Your task to perform on an android device: Go to network settings Image 0: 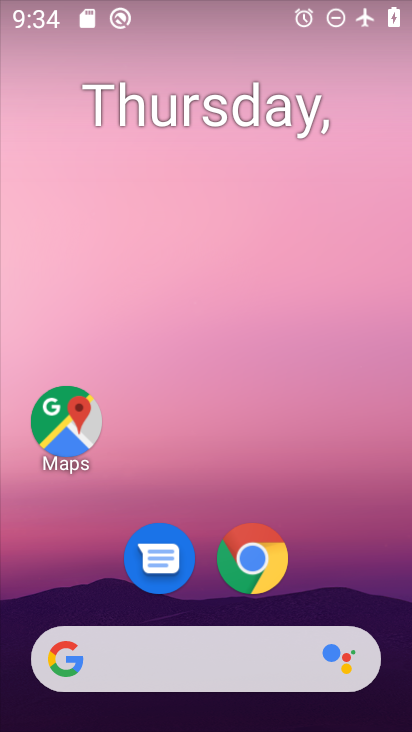
Step 0: drag from (400, 660) to (280, 68)
Your task to perform on an android device: Go to network settings Image 1: 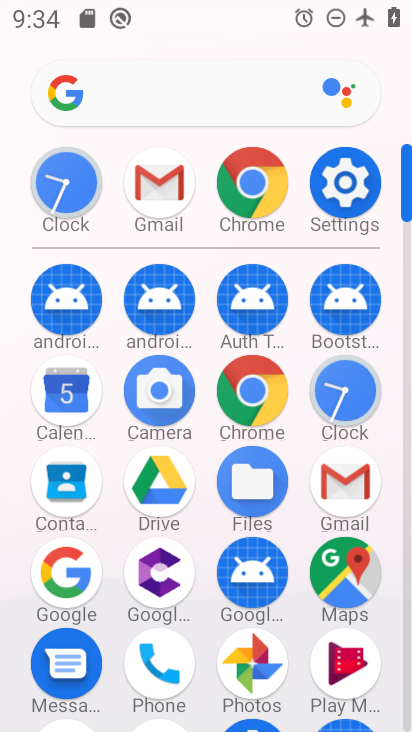
Step 1: click (408, 712)
Your task to perform on an android device: Go to network settings Image 2: 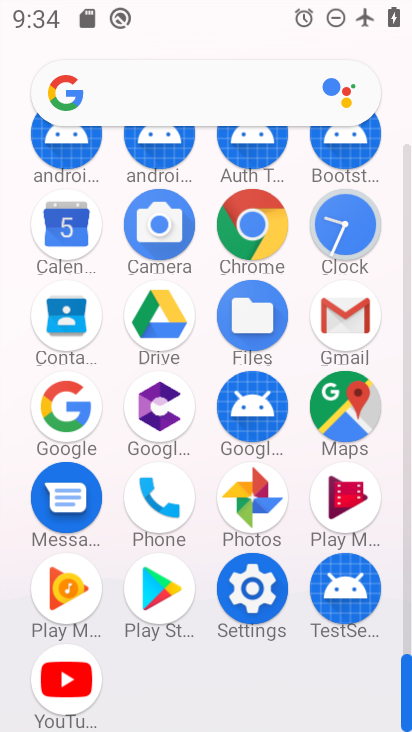
Step 2: click (252, 586)
Your task to perform on an android device: Go to network settings Image 3: 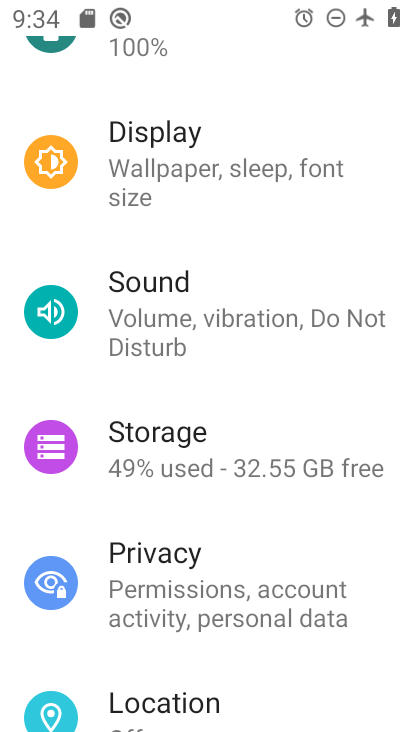
Step 3: drag from (368, 228) to (352, 469)
Your task to perform on an android device: Go to network settings Image 4: 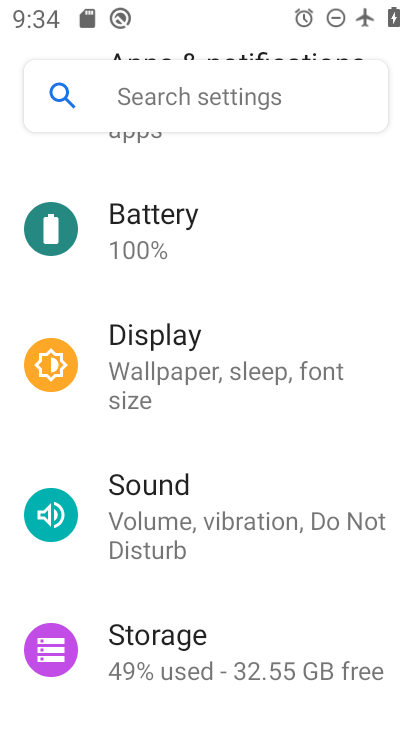
Step 4: drag from (338, 237) to (320, 549)
Your task to perform on an android device: Go to network settings Image 5: 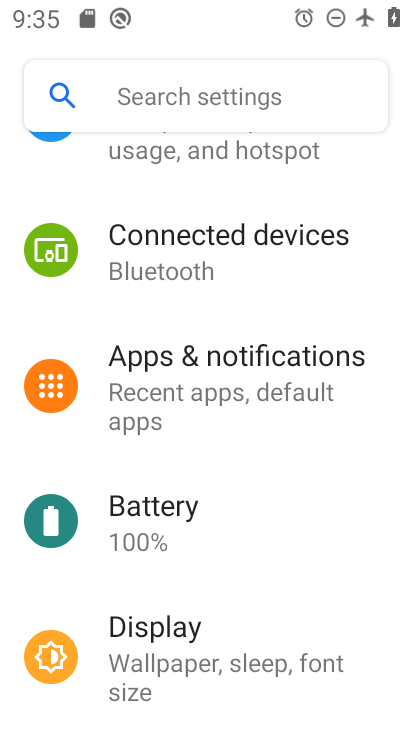
Step 5: drag from (244, 225) to (245, 614)
Your task to perform on an android device: Go to network settings Image 6: 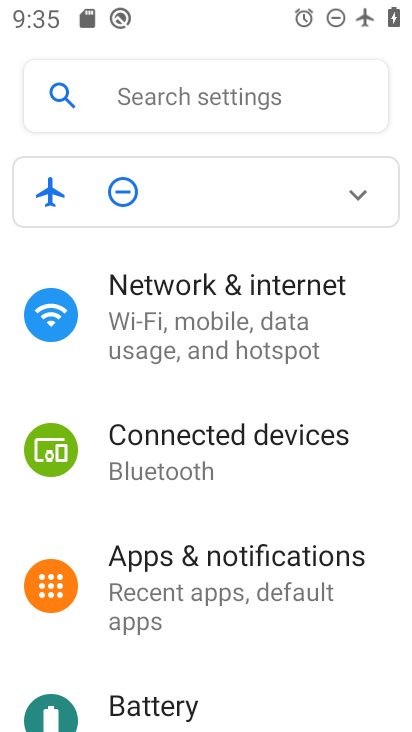
Step 6: click (181, 279)
Your task to perform on an android device: Go to network settings Image 7: 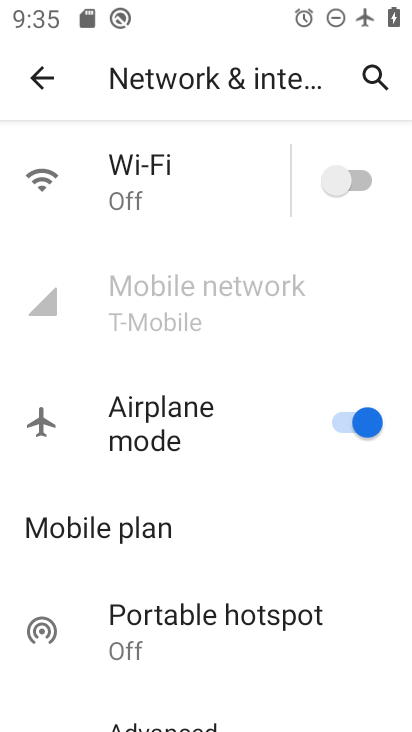
Step 7: drag from (175, 603) to (208, 140)
Your task to perform on an android device: Go to network settings Image 8: 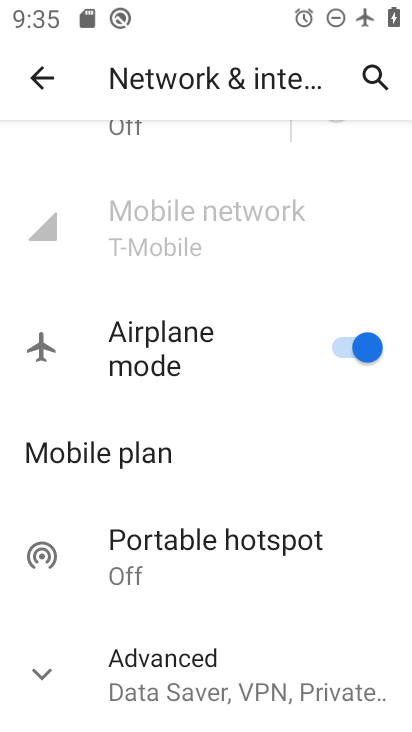
Step 8: click (50, 674)
Your task to perform on an android device: Go to network settings Image 9: 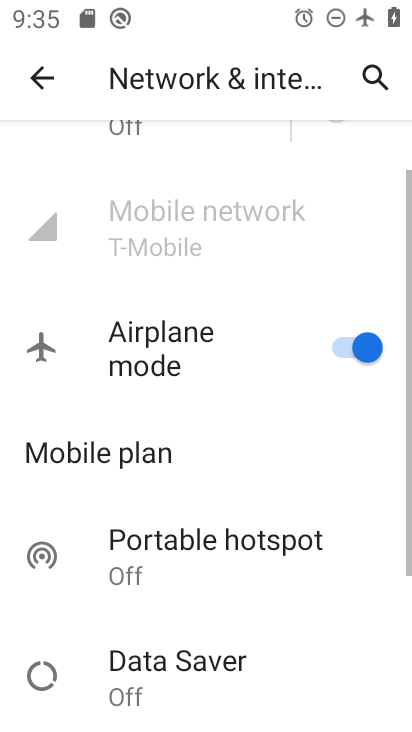
Step 9: task complete